Your task to perform on an android device: Open accessibility settings Image 0: 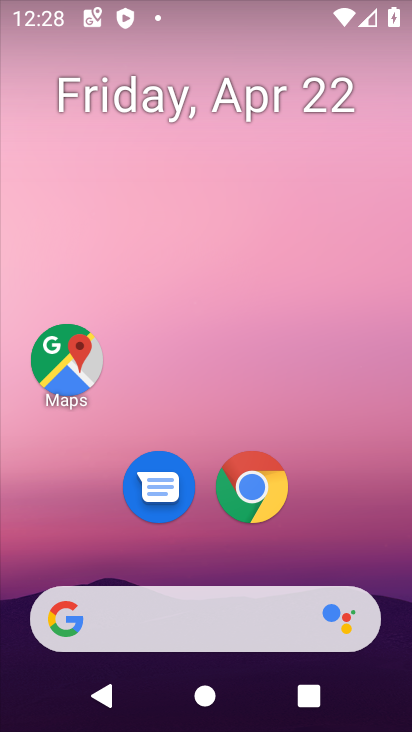
Step 0: drag from (201, 435) to (201, 109)
Your task to perform on an android device: Open accessibility settings Image 1: 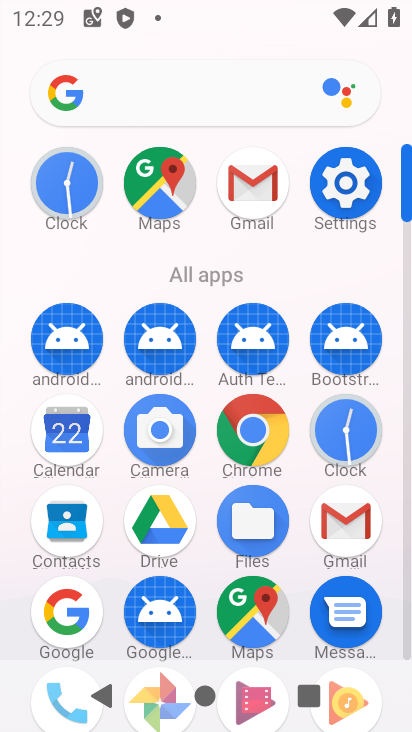
Step 1: click (349, 185)
Your task to perform on an android device: Open accessibility settings Image 2: 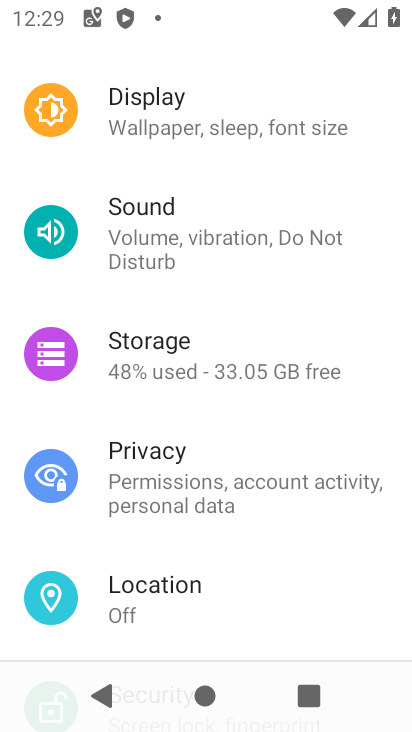
Step 2: drag from (226, 599) to (237, 271)
Your task to perform on an android device: Open accessibility settings Image 3: 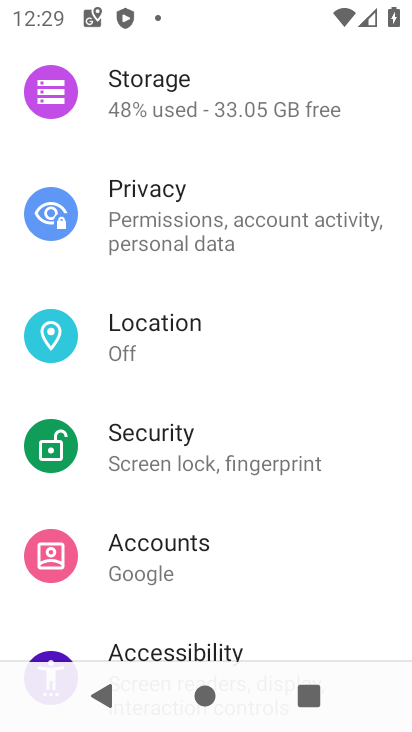
Step 3: drag from (216, 533) to (245, 275)
Your task to perform on an android device: Open accessibility settings Image 4: 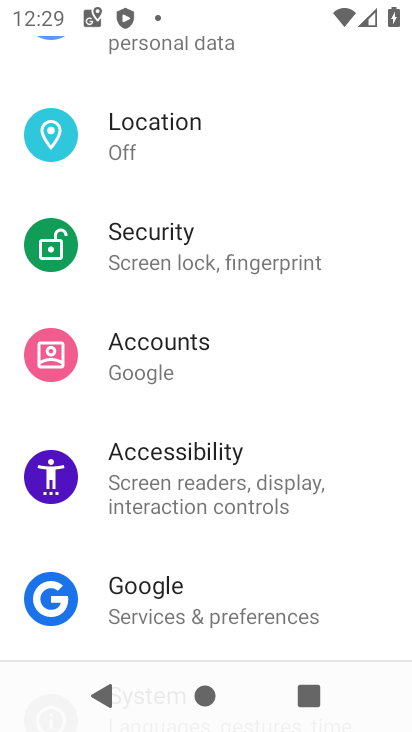
Step 4: click (193, 459)
Your task to perform on an android device: Open accessibility settings Image 5: 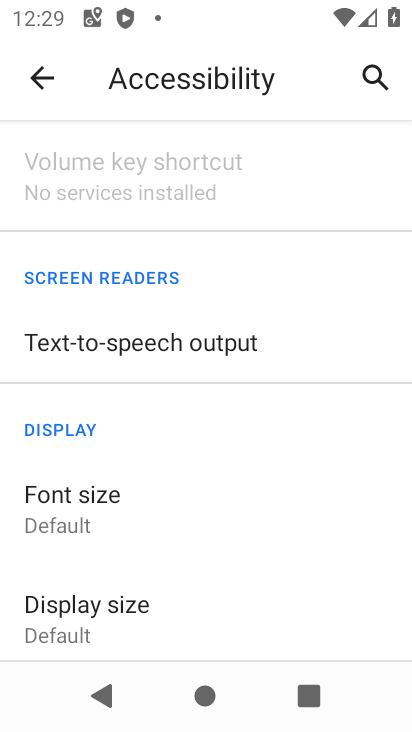
Step 5: task complete